Your task to perform on an android device: Go to CNN.com Image 0: 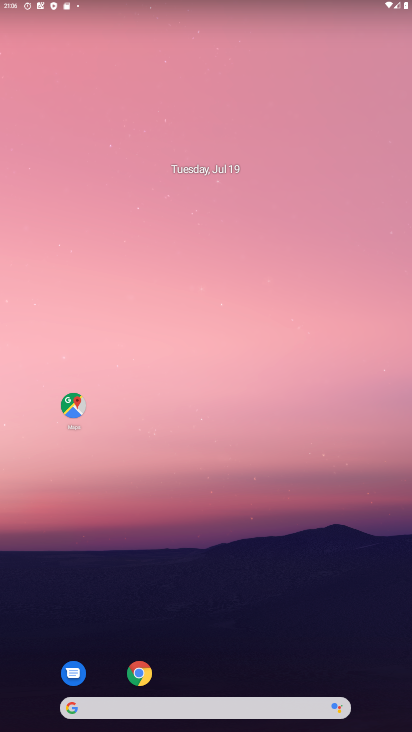
Step 0: click (138, 670)
Your task to perform on an android device: Go to CNN.com Image 1: 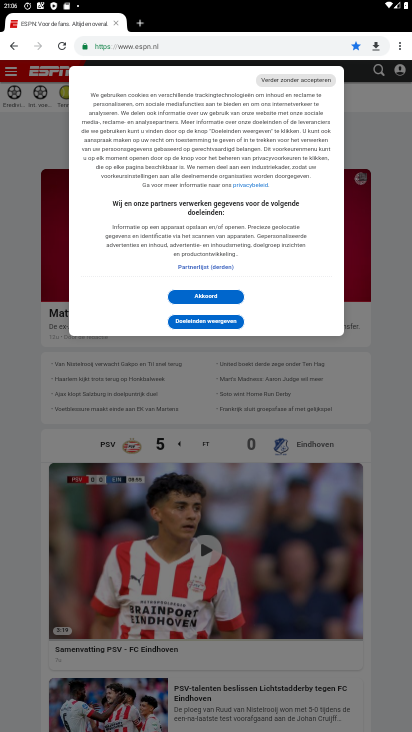
Step 1: click (165, 42)
Your task to perform on an android device: Go to CNN.com Image 2: 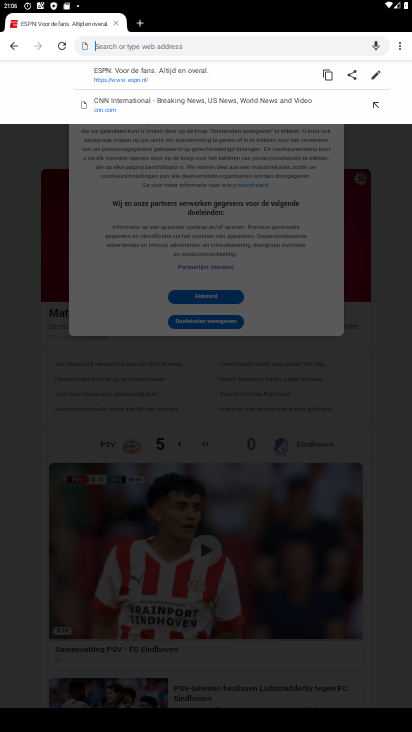
Step 2: type "CNN.com"
Your task to perform on an android device: Go to CNN.com Image 3: 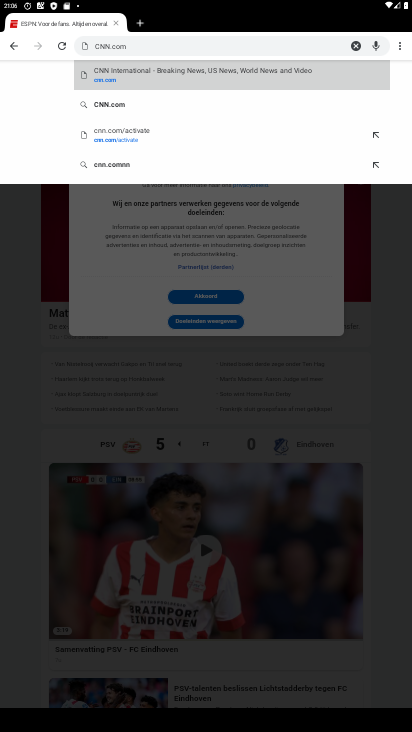
Step 3: click (140, 68)
Your task to perform on an android device: Go to CNN.com Image 4: 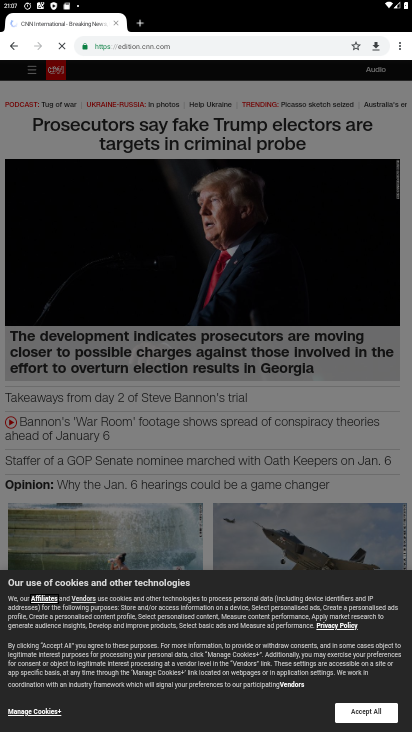
Step 4: task complete